Your task to perform on an android device: turn off sleep mode Image 0: 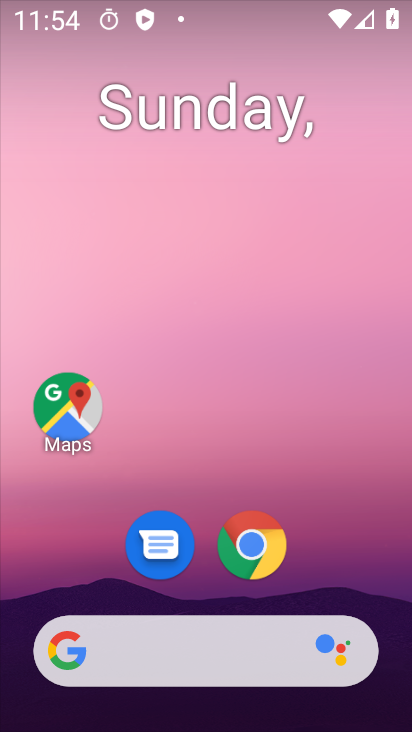
Step 0: drag from (203, 586) to (209, 223)
Your task to perform on an android device: turn off sleep mode Image 1: 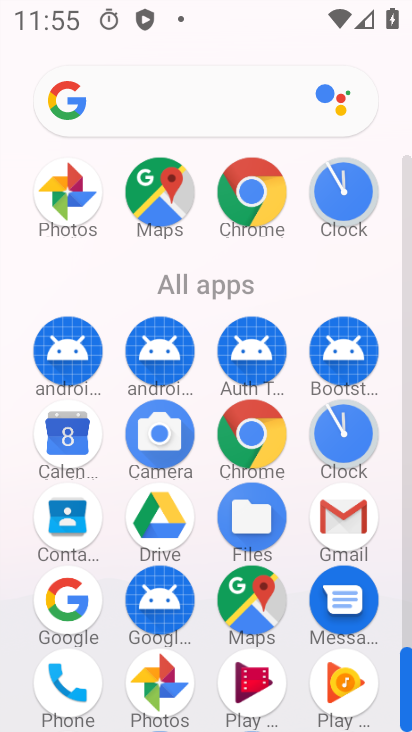
Step 1: drag from (202, 661) to (203, 301)
Your task to perform on an android device: turn off sleep mode Image 2: 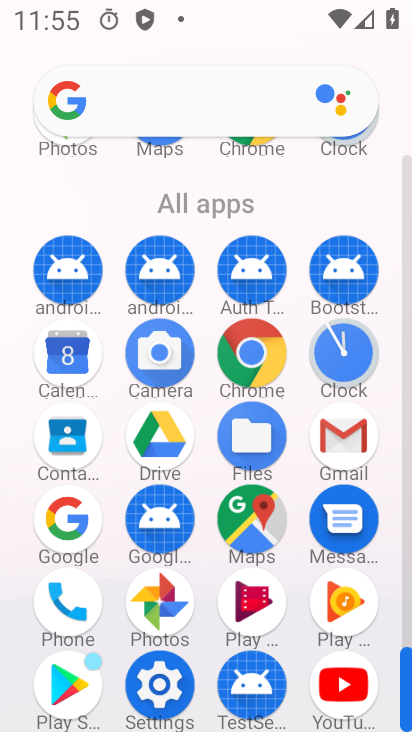
Step 2: click (168, 707)
Your task to perform on an android device: turn off sleep mode Image 3: 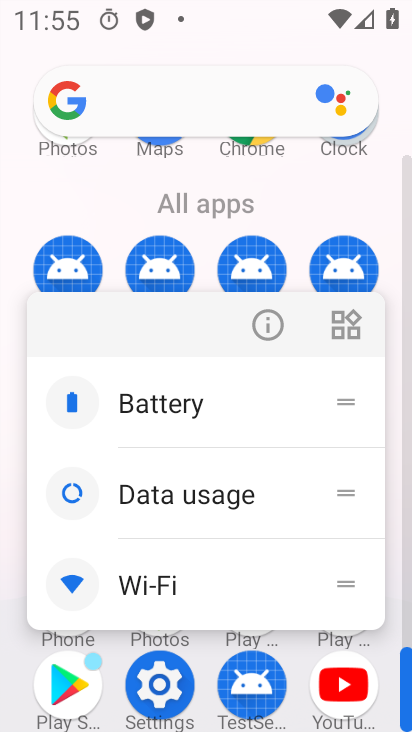
Step 3: click (253, 332)
Your task to perform on an android device: turn off sleep mode Image 4: 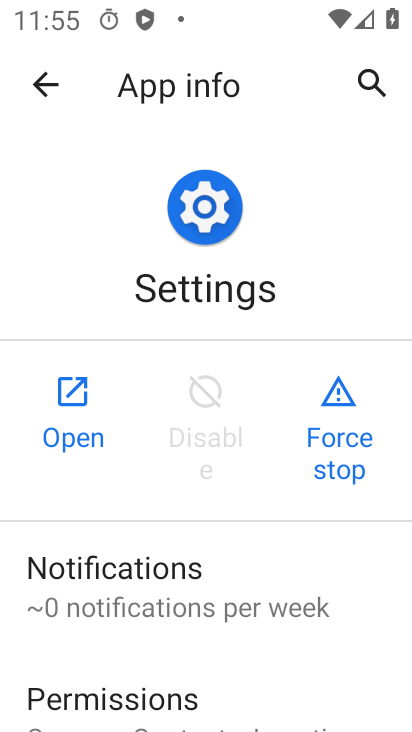
Step 4: click (67, 395)
Your task to perform on an android device: turn off sleep mode Image 5: 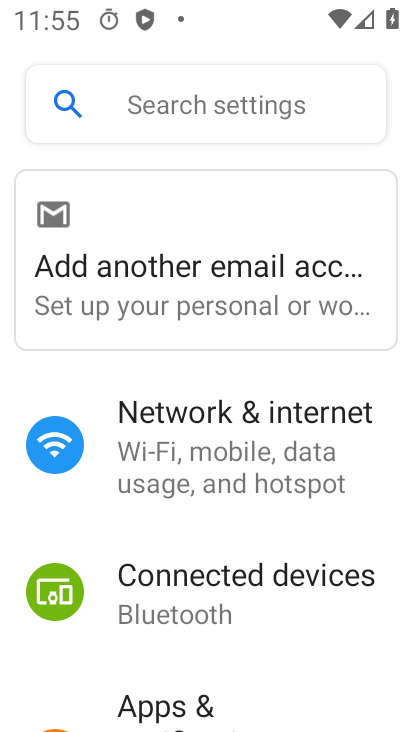
Step 5: drag from (233, 673) to (334, 165)
Your task to perform on an android device: turn off sleep mode Image 6: 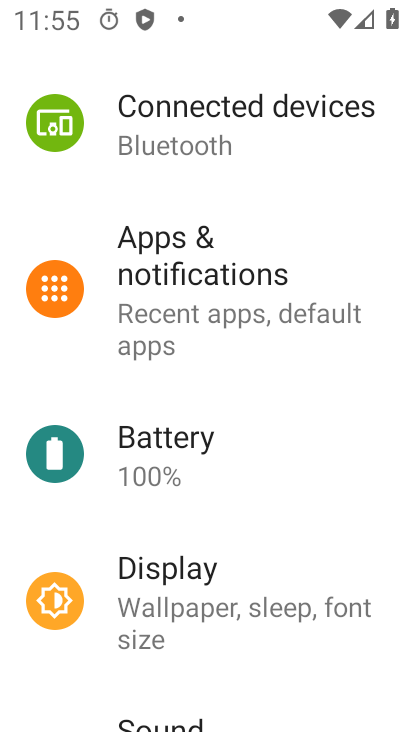
Step 6: drag from (210, 623) to (229, 210)
Your task to perform on an android device: turn off sleep mode Image 7: 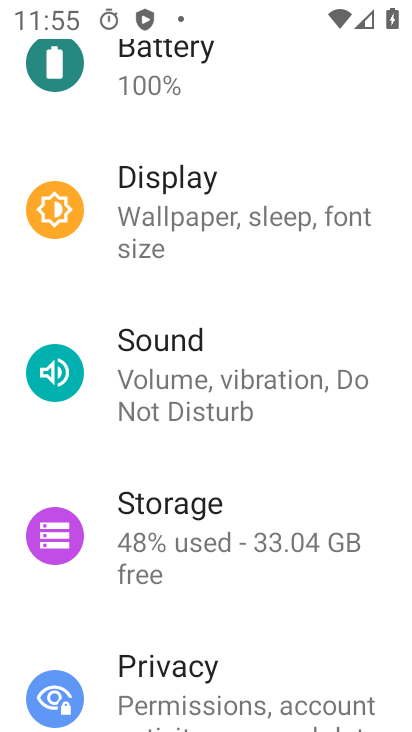
Step 7: click (179, 209)
Your task to perform on an android device: turn off sleep mode Image 8: 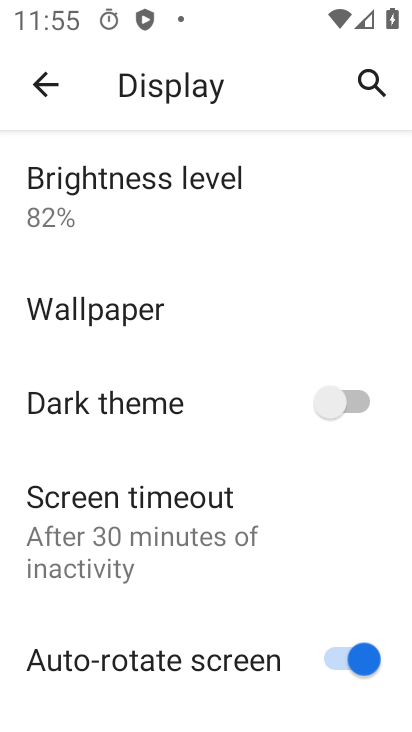
Step 8: drag from (205, 552) to (252, 173)
Your task to perform on an android device: turn off sleep mode Image 9: 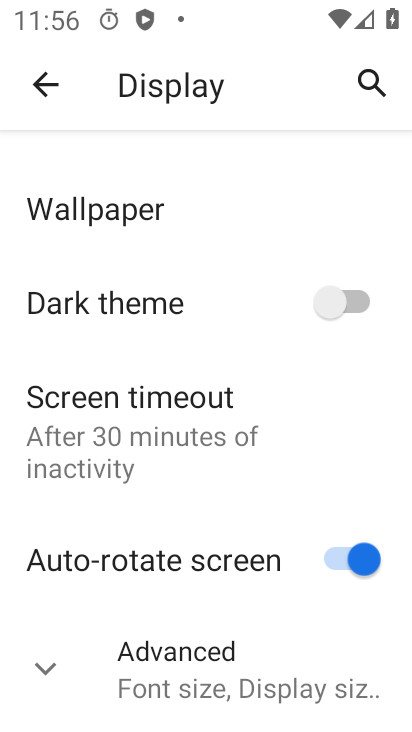
Step 9: click (162, 437)
Your task to perform on an android device: turn off sleep mode Image 10: 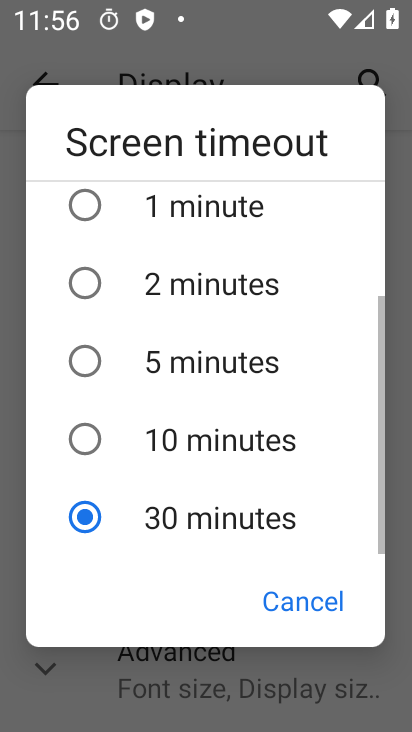
Step 10: task complete